Your task to perform on an android device: Open maps Image 0: 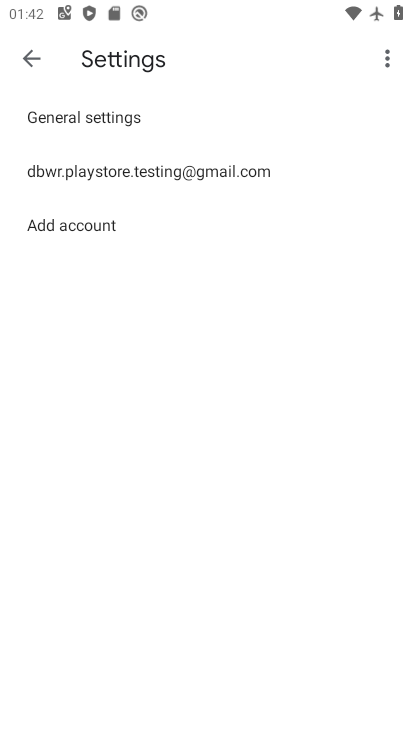
Step 0: press home button
Your task to perform on an android device: Open maps Image 1: 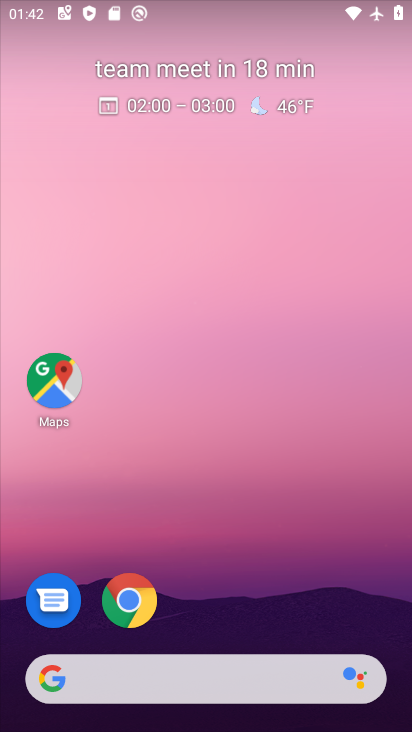
Step 1: click (47, 386)
Your task to perform on an android device: Open maps Image 2: 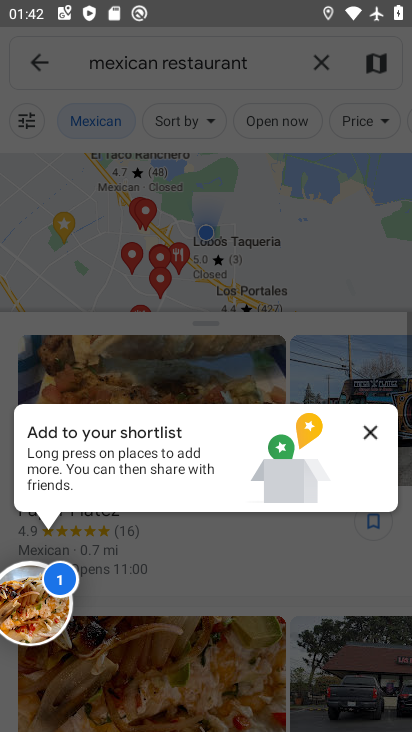
Step 2: click (374, 428)
Your task to perform on an android device: Open maps Image 3: 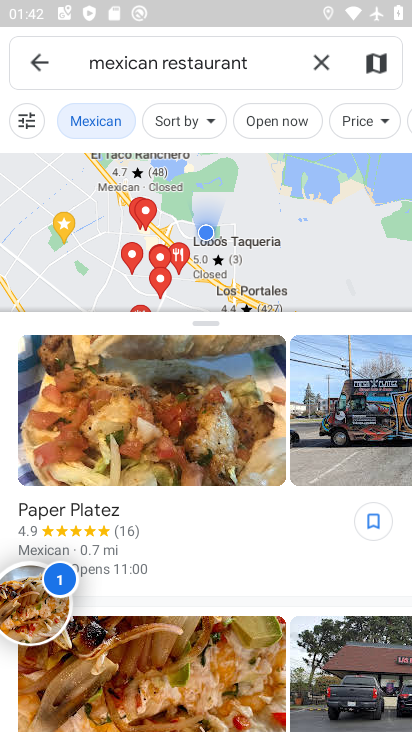
Step 3: task complete